Your task to perform on an android device: Open the calendar and show me this week's events Image 0: 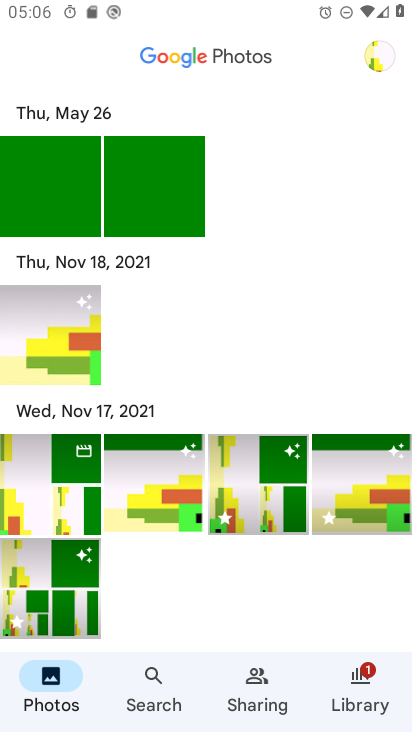
Step 0: press home button
Your task to perform on an android device: Open the calendar and show me this week's events Image 1: 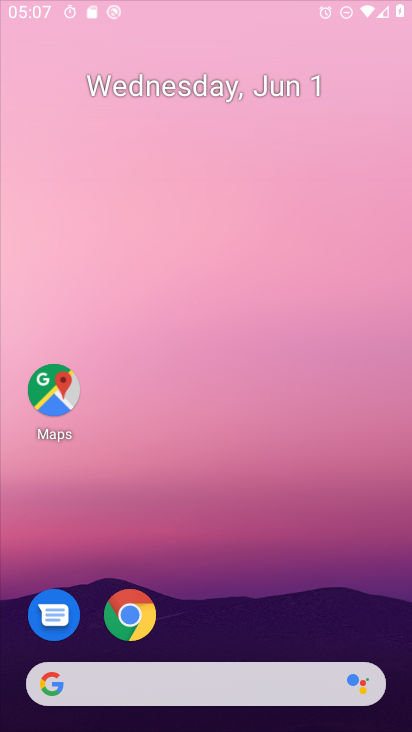
Step 1: drag from (223, 674) to (312, 110)
Your task to perform on an android device: Open the calendar and show me this week's events Image 2: 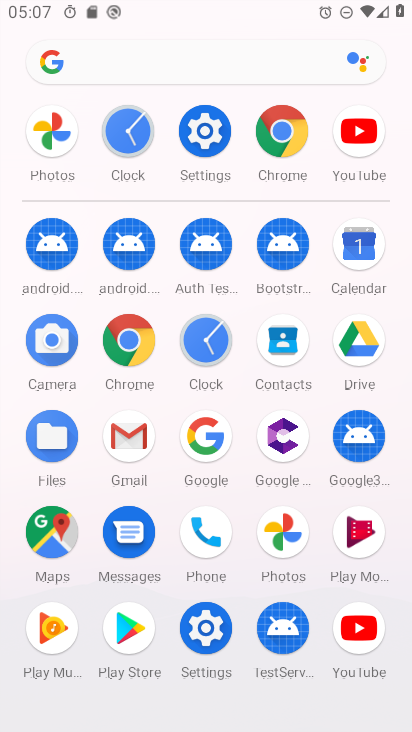
Step 2: click (361, 263)
Your task to perform on an android device: Open the calendar and show me this week's events Image 3: 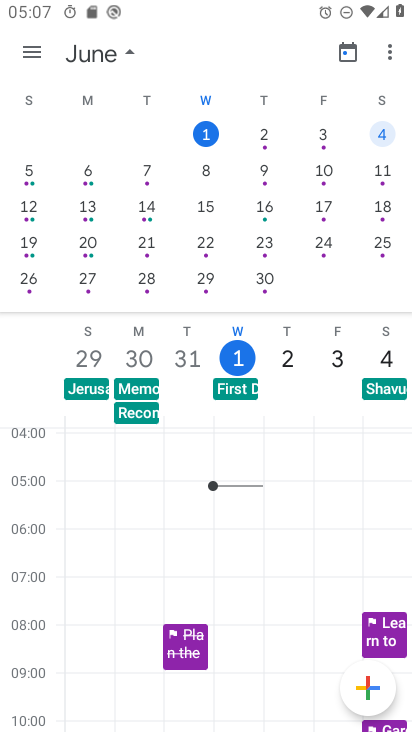
Step 3: click (378, 144)
Your task to perform on an android device: Open the calendar and show me this week's events Image 4: 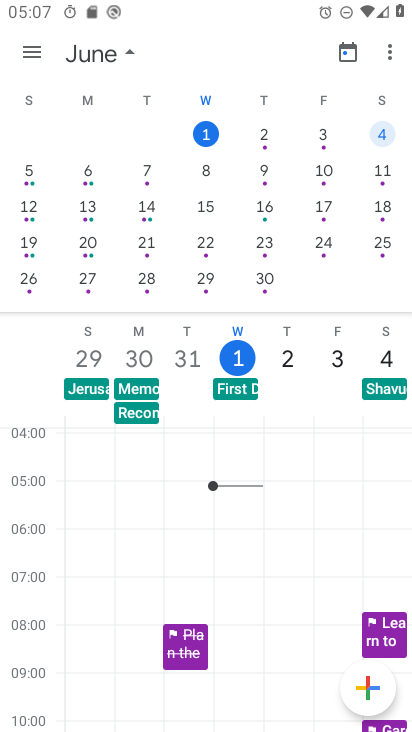
Step 4: click (380, 131)
Your task to perform on an android device: Open the calendar and show me this week's events Image 5: 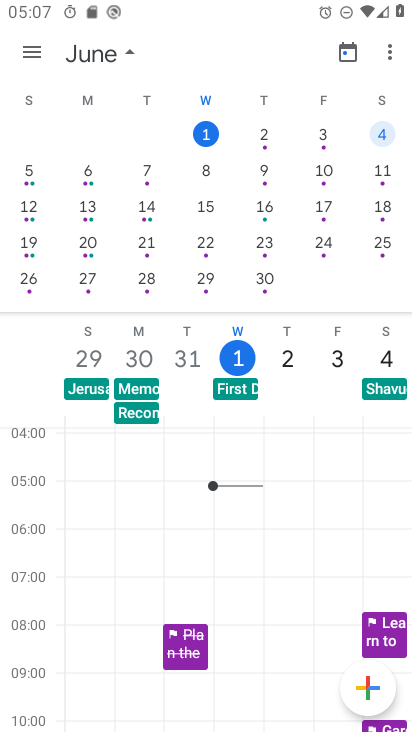
Step 5: click (380, 131)
Your task to perform on an android device: Open the calendar and show me this week's events Image 6: 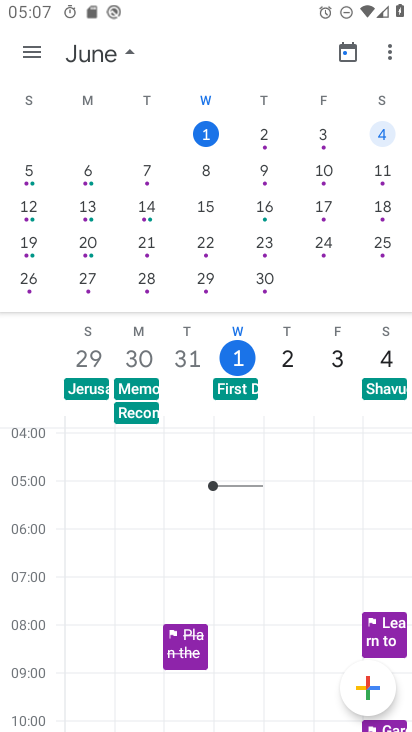
Step 6: task complete